Your task to perform on an android device: What's the weather going to be tomorrow? Image 0: 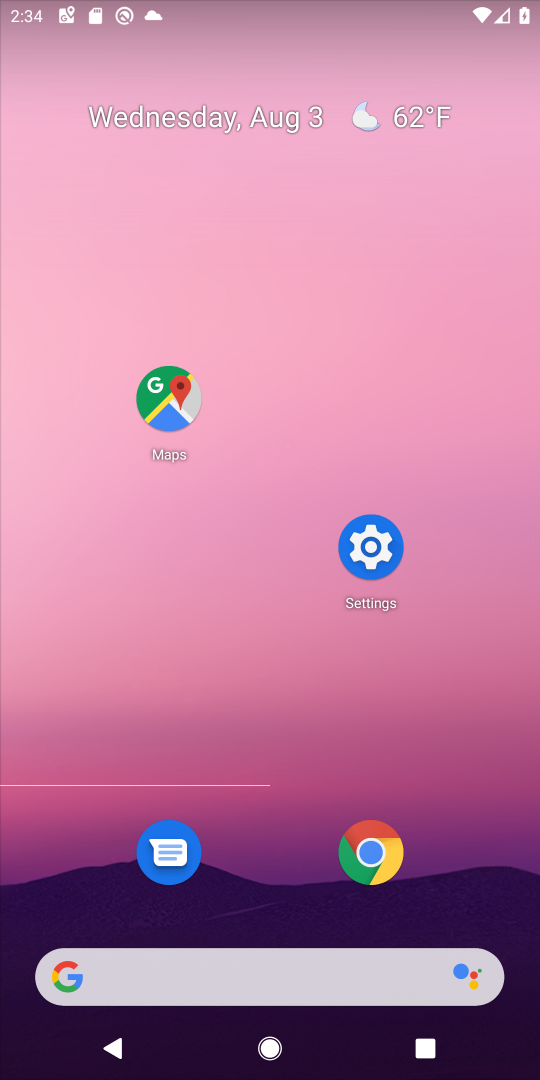
Step 0: click (155, 976)
Your task to perform on an android device: What's the weather going to be tomorrow? Image 1: 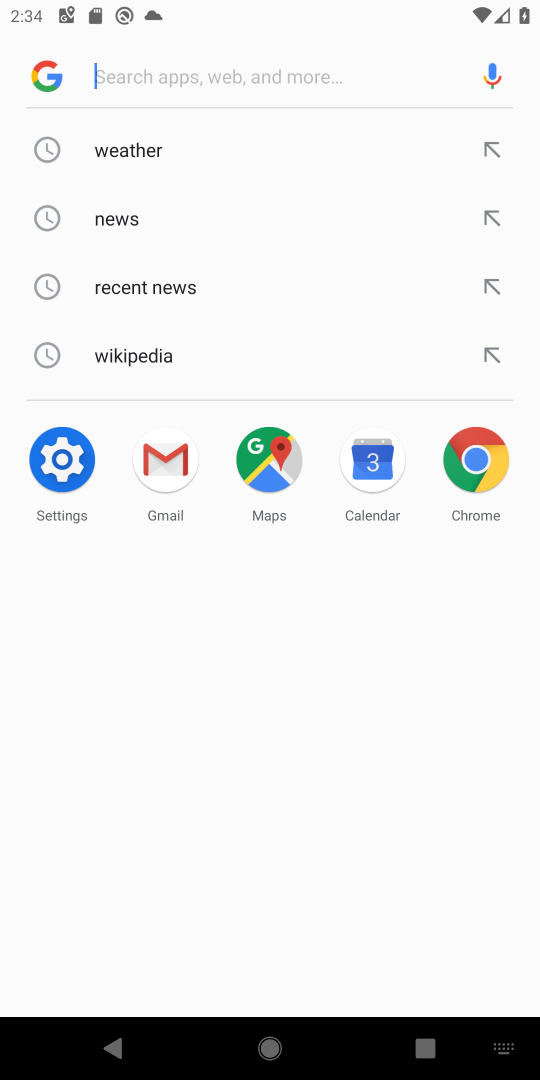
Step 1: click (118, 143)
Your task to perform on an android device: What's the weather going to be tomorrow? Image 2: 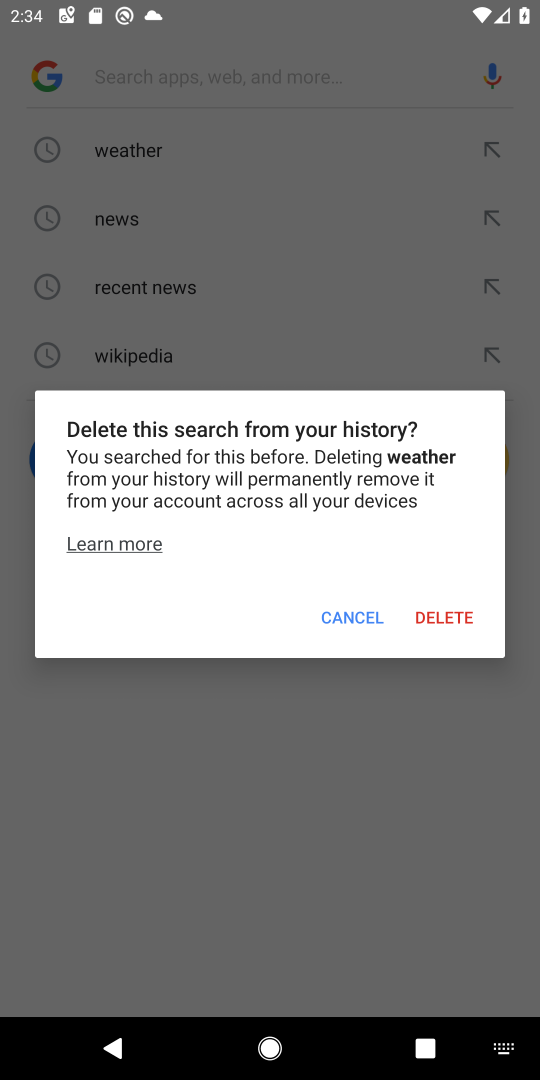
Step 2: click (340, 615)
Your task to perform on an android device: What's the weather going to be tomorrow? Image 3: 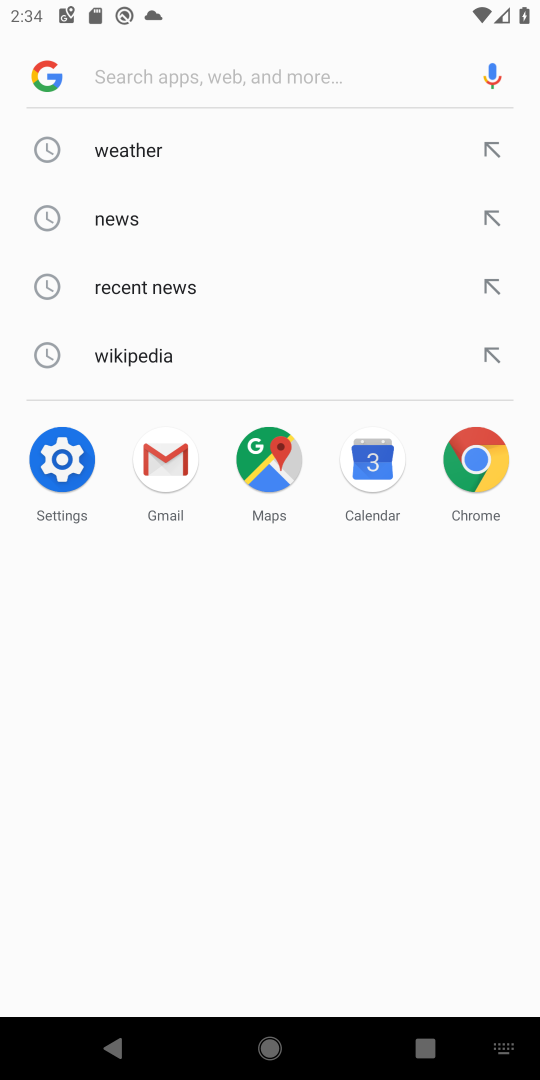
Step 3: click (107, 163)
Your task to perform on an android device: What's the weather going to be tomorrow? Image 4: 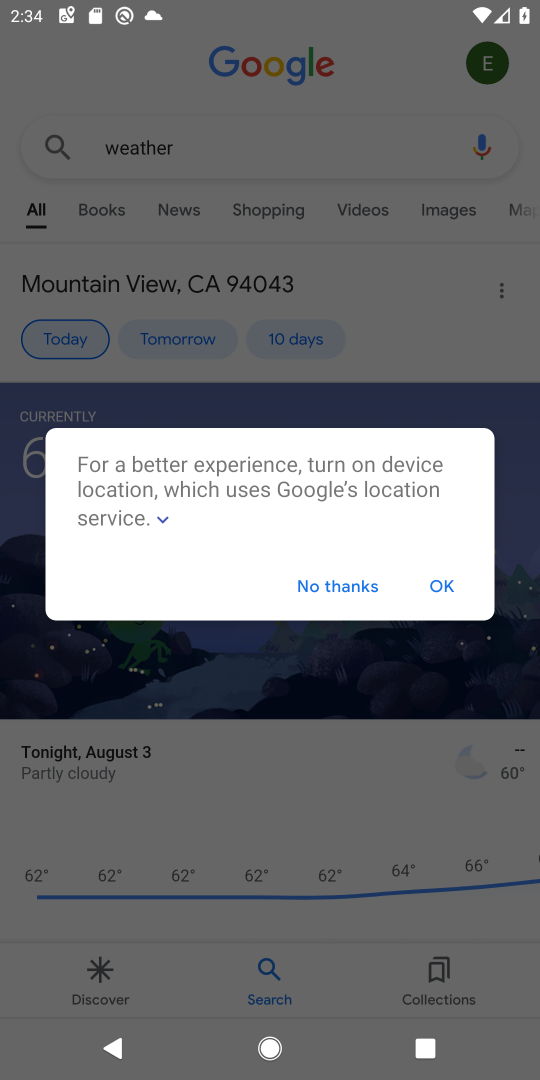
Step 4: click (436, 584)
Your task to perform on an android device: What's the weather going to be tomorrow? Image 5: 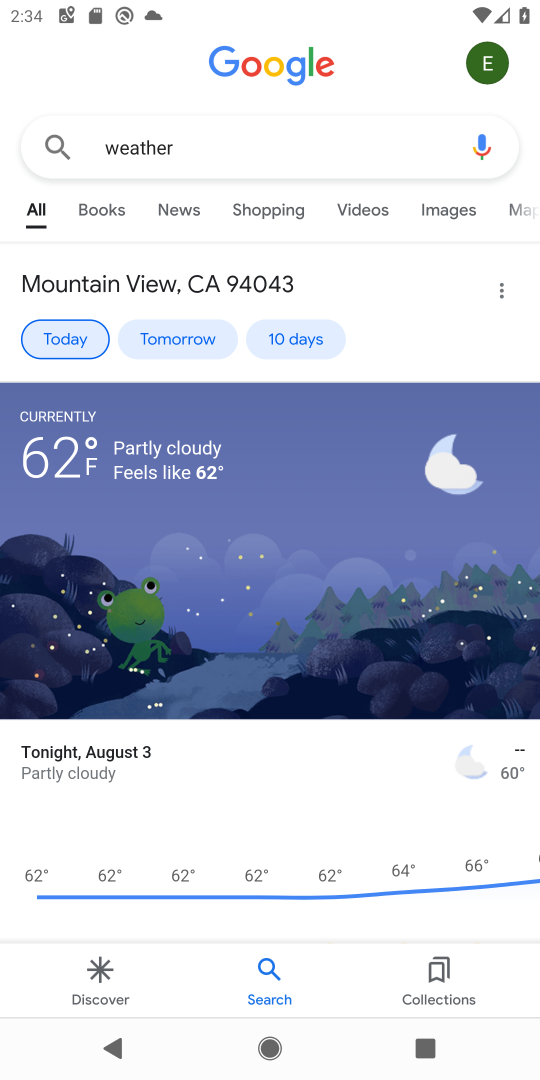
Step 5: click (174, 337)
Your task to perform on an android device: What's the weather going to be tomorrow? Image 6: 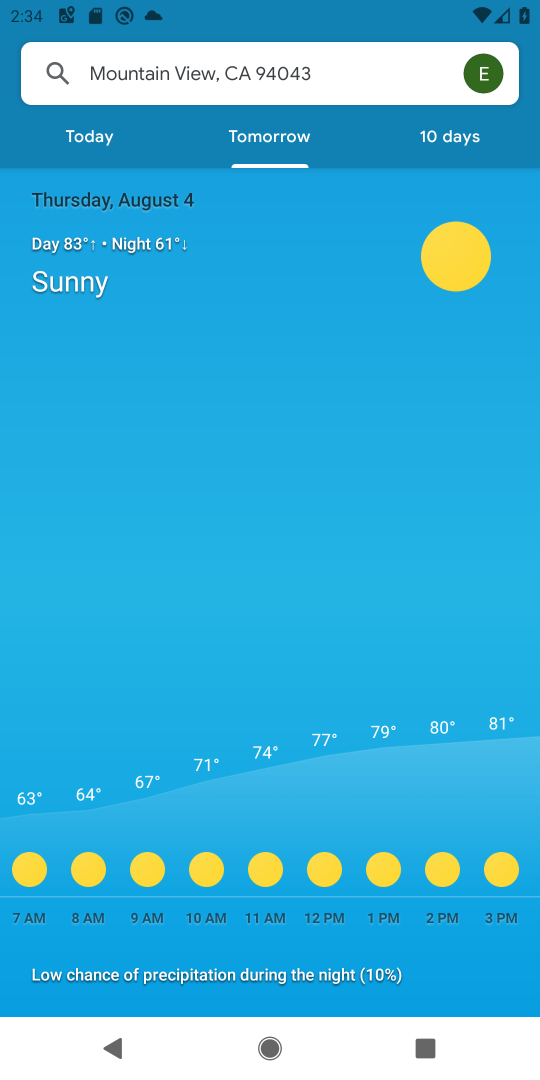
Step 6: task complete